Your task to perform on an android device: make emails show in primary in the gmail app Image 0: 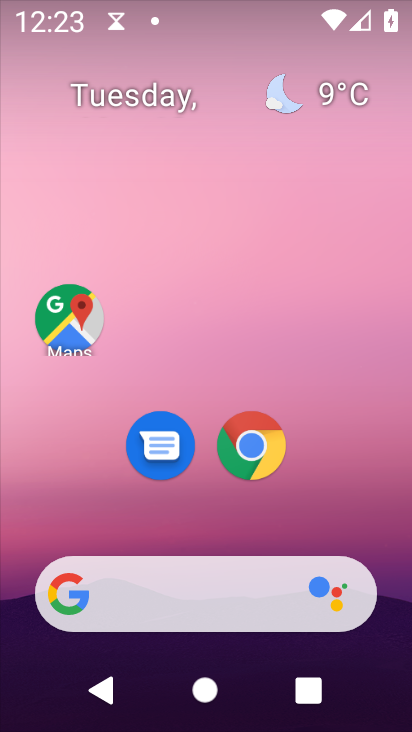
Step 0: drag from (307, 564) to (309, 36)
Your task to perform on an android device: make emails show in primary in the gmail app Image 1: 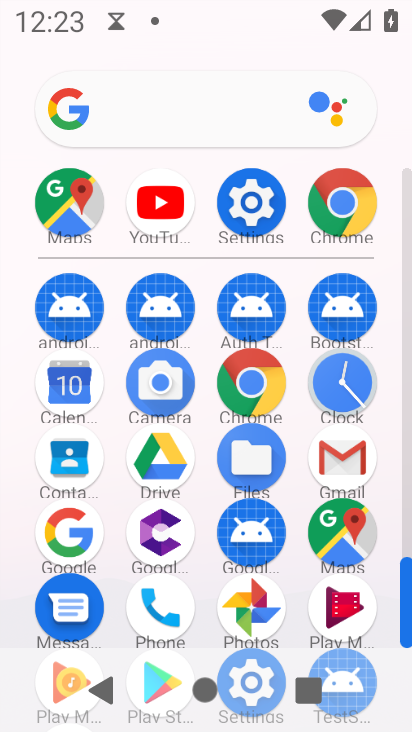
Step 1: click (344, 460)
Your task to perform on an android device: make emails show in primary in the gmail app Image 2: 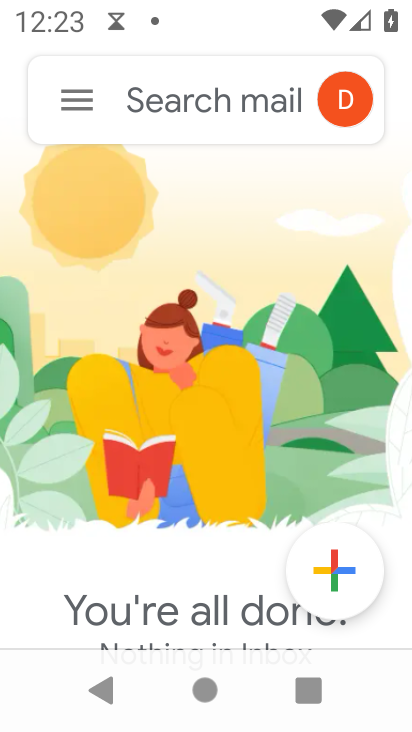
Step 2: click (83, 97)
Your task to perform on an android device: make emails show in primary in the gmail app Image 3: 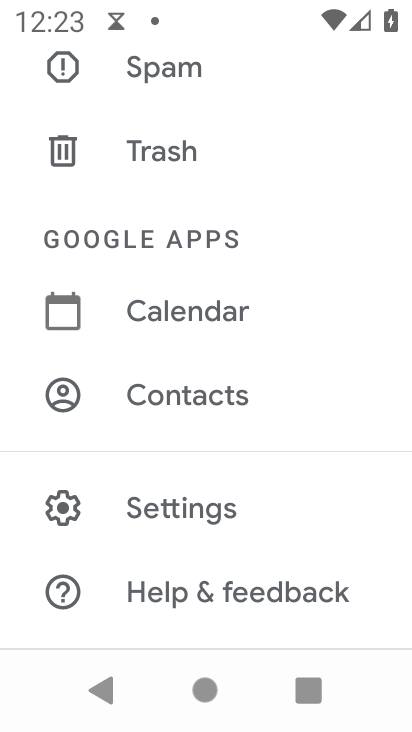
Step 3: drag from (216, 150) to (291, 663)
Your task to perform on an android device: make emails show in primary in the gmail app Image 4: 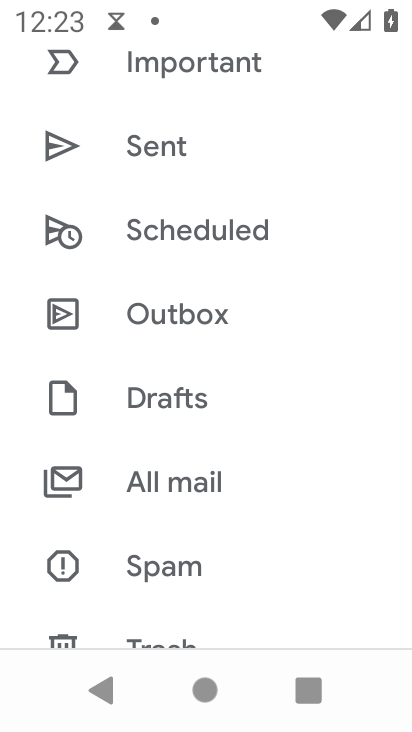
Step 4: drag from (267, 237) to (294, 581)
Your task to perform on an android device: make emails show in primary in the gmail app Image 5: 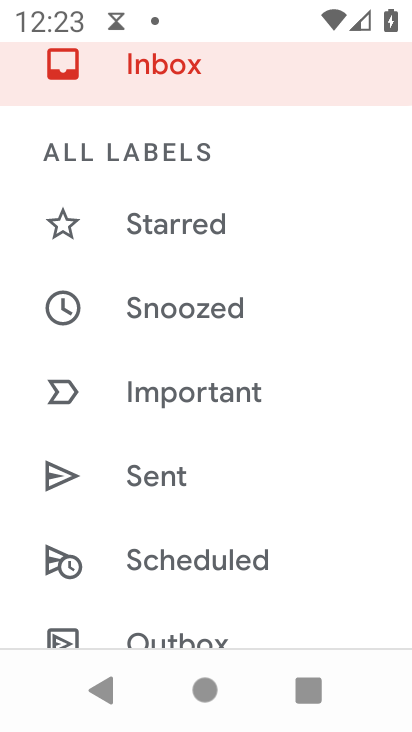
Step 5: drag from (287, 262) to (285, 624)
Your task to perform on an android device: make emails show in primary in the gmail app Image 6: 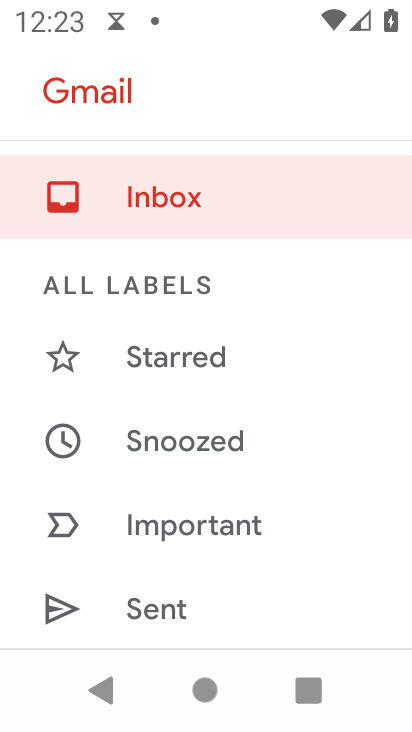
Step 6: drag from (231, 589) to (226, 96)
Your task to perform on an android device: make emails show in primary in the gmail app Image 7: 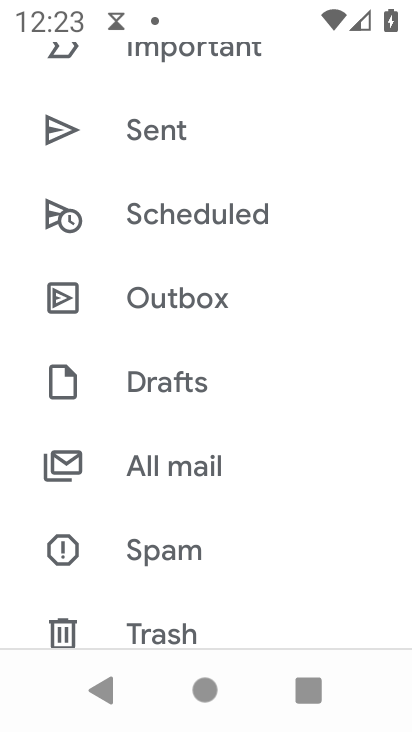
Step 7: drag from (259, 530) to (233, 203)
Your task to perform on an android device: make emails show in primary in the gmail app Image 8: 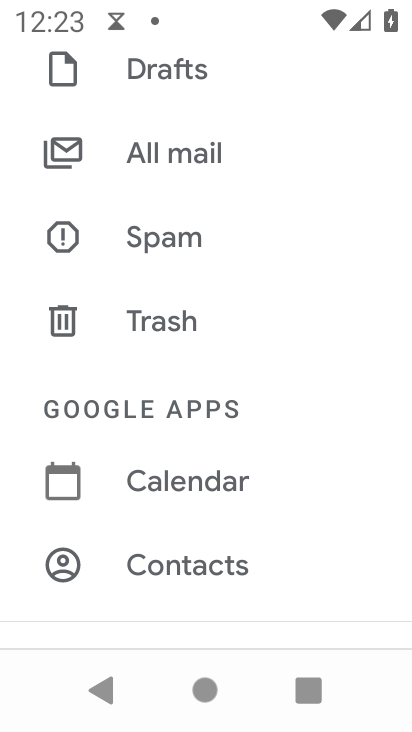
Step 8: drag from (207, 578) to (228, 235)
Your task to perform on an android device: make emails show in primary in the gmail app Image 9: 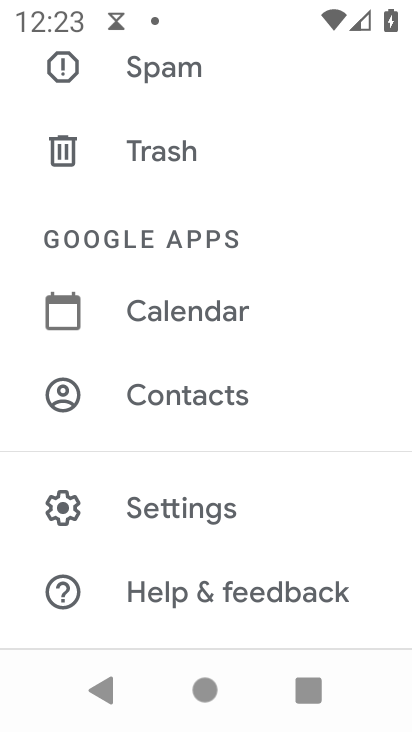
Step 9: click (222, 512)
Your task to perform on an android device: make emails show in primary in the gmail app Image 10: 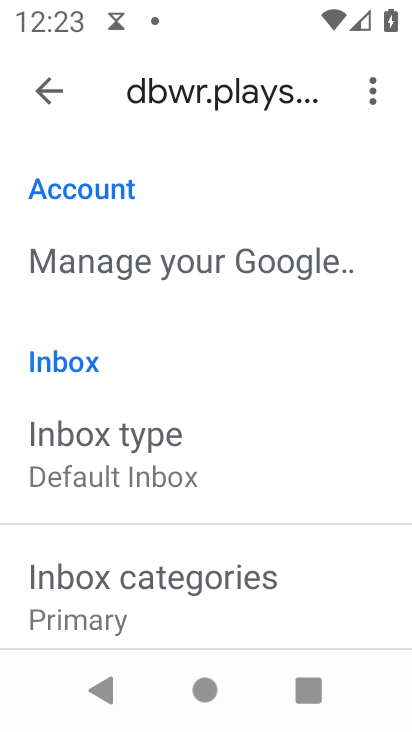
Step 10: click (133, 480)
Your task to perform on an android device: make emails show in primary in the gmail app Image 11: 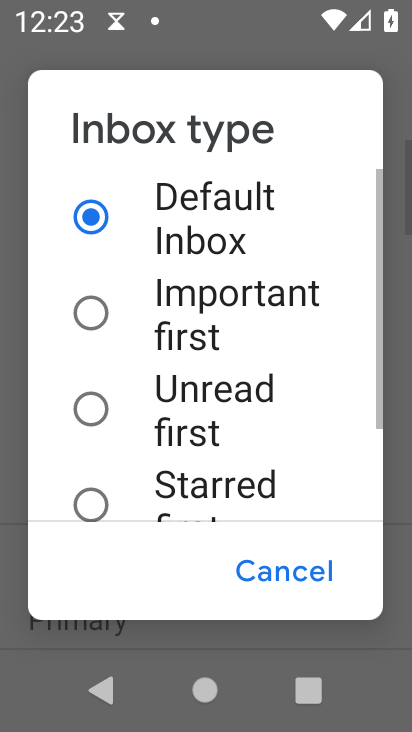
Step 11: click (126, 238)
Your task to perform on an android device: make emails show in primary in the gmail app Image 12: 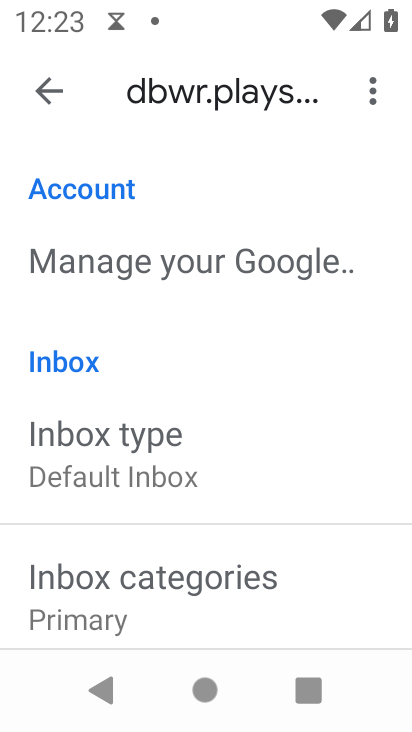
Step 12: task complete